Your task to perform on an android device: Go to Google Image 0: 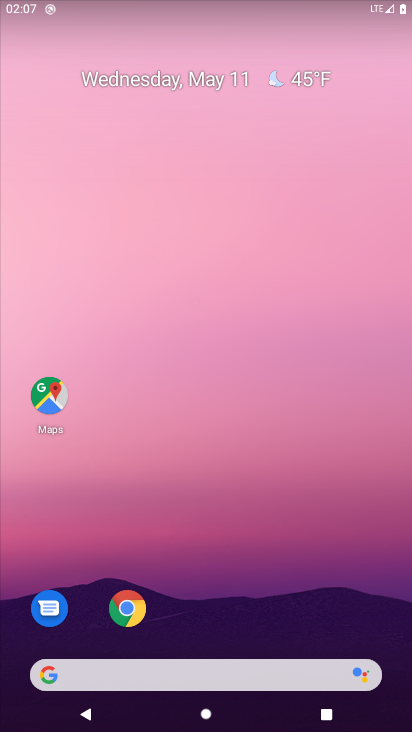
Step 0: drag from (221, 630) to (214, 174)
Your task to perform on an android device: Go to Google Image 1: 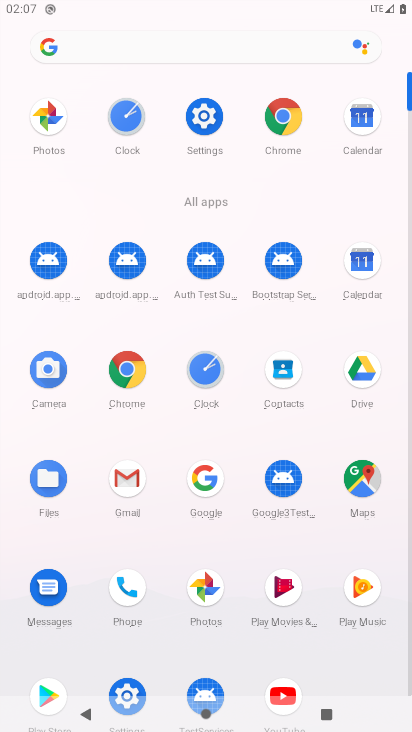
Step 1: click (202, 469)
Your task to perform on an android device: Go to Google Image 2: 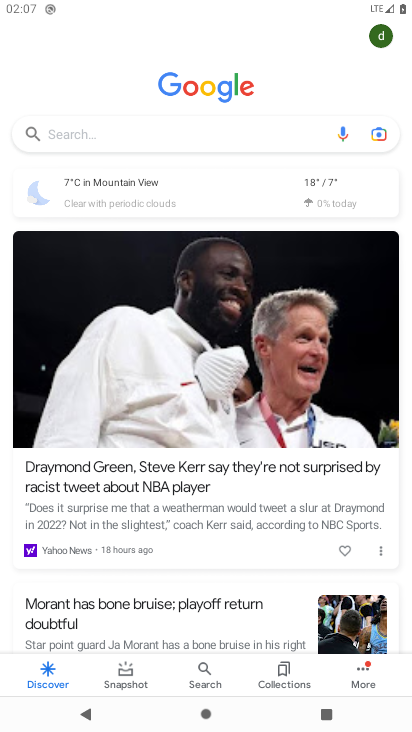
Step 2: task complete